Your task to perform on an android device: Go to location settings Image 0: 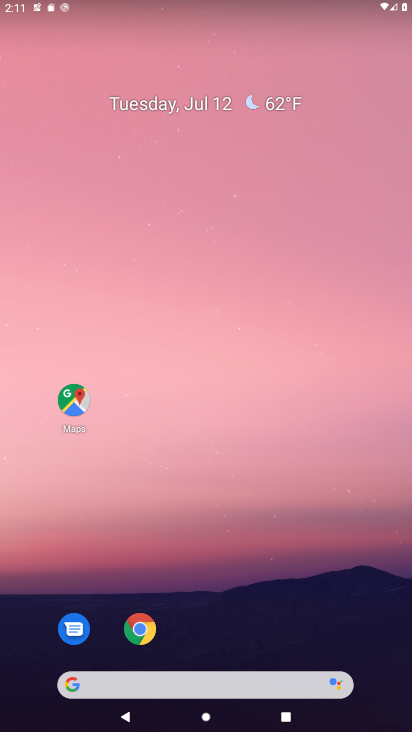
Step 0: drag from (227, 642) to (227, 89)
Your task to perform on an android device: Go to location settings Image 1: 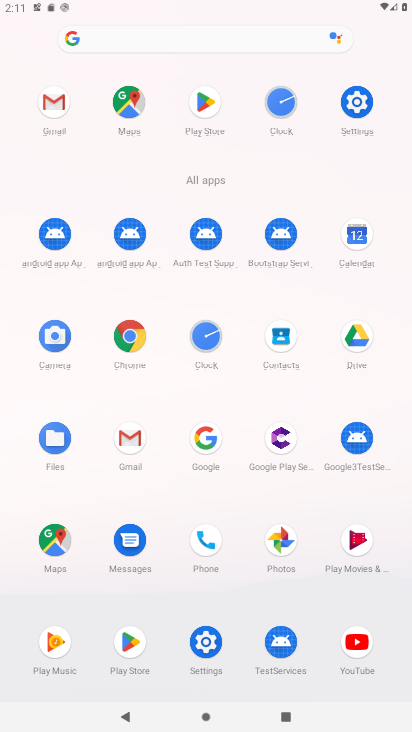
Step 1: press home button
Your task to perform on an android device: Go to location settings Image 2: 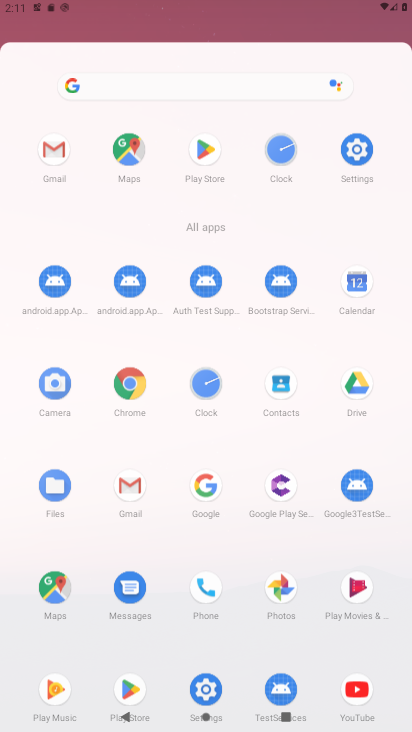
Step 2: press home button
Your task to perform on an android device: Go to location settings Image 3: 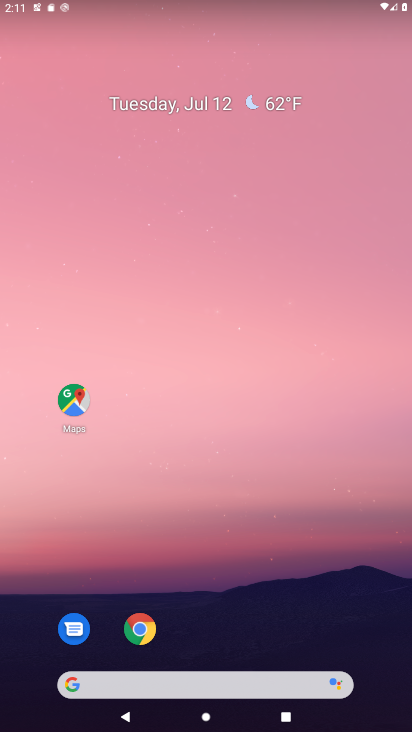
Step 3: drag from (216, 642) to (236, 37)
Your task to perform on an android device: Go to location settings Image 4: 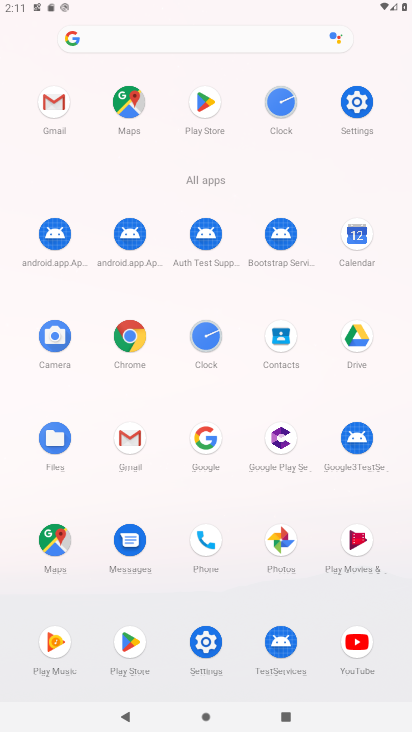
Step 4: click (361, 91)
Your task to perform on an android device: Go to location settings Image 5: 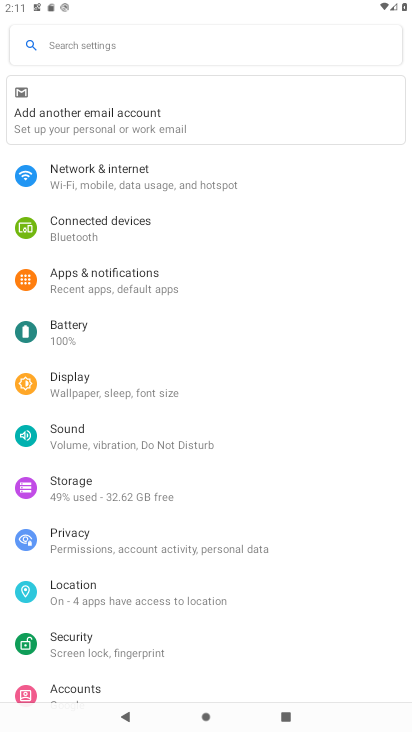
Step 5: click (113, 585)
Your task to perform on an android device: Go to location settings Image 6: 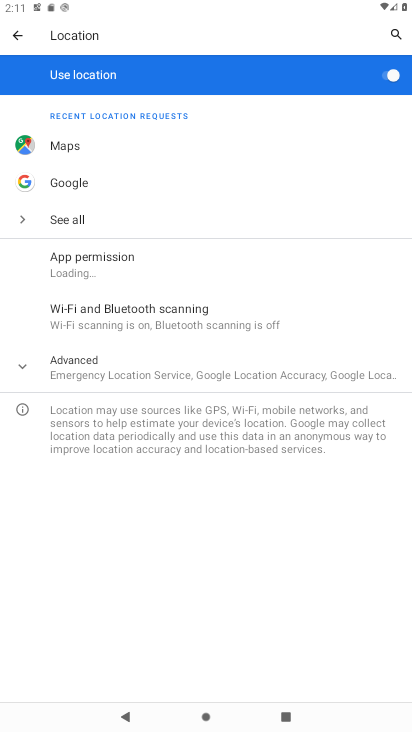
Step 6: click (22, 361)
Your task to perform on an android device: Go to location settings Image 7: 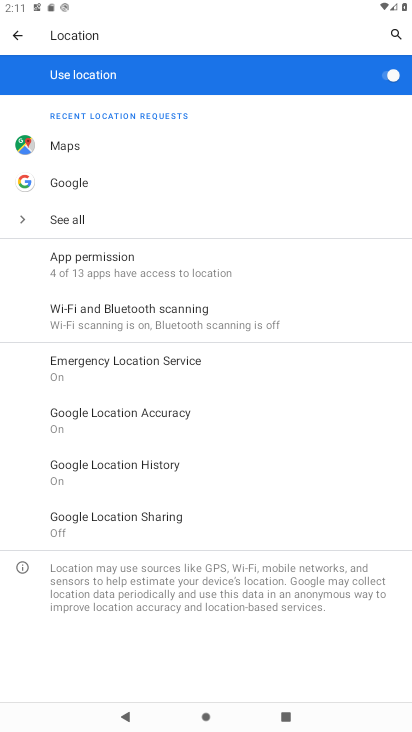
Step 7: task complete